Your task to perform on an android device: snooze an email in the gmail app Image 0: 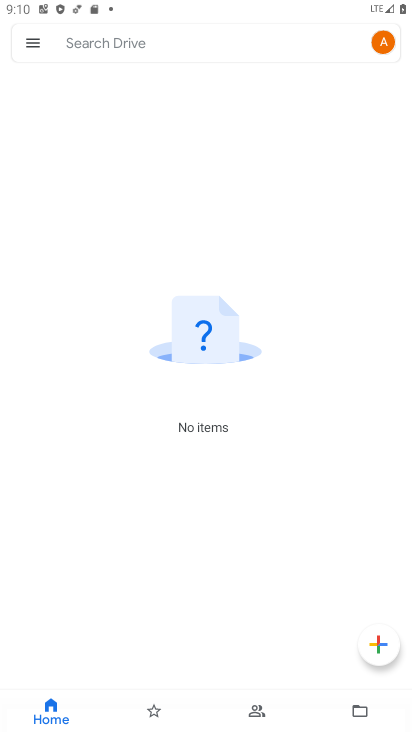
Step 0: press home button
Your task to perform on an android device: snooze an email in the gmail app Image 1: 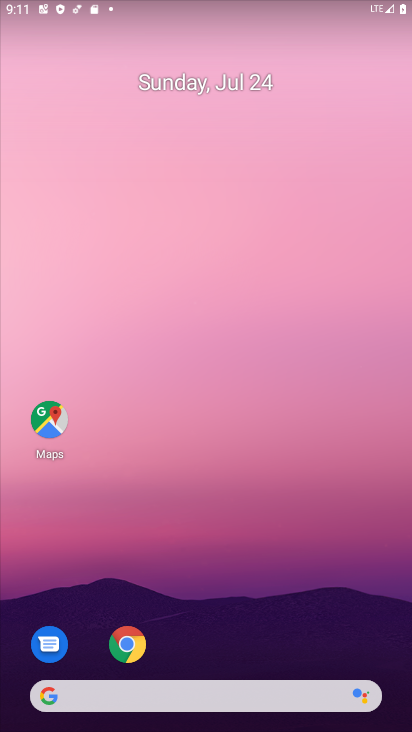
Step 1: drag from (14, 594) to (277, 140)
Your task to perform on an android device: snooze an email in the gmail app Image 2: 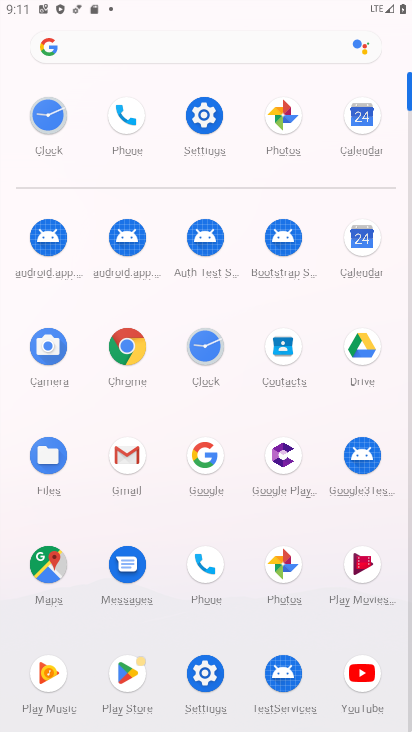
Step 2: click (122, 450)
Your task to perform on an android device: snooze an email in the gmail app Image 3: 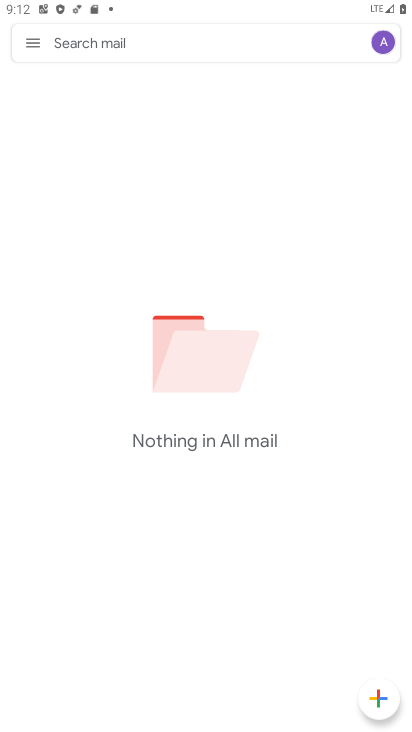
Step 3: click (35, 52)
Your task to perform on an android device: snooze an email in the gmail app Image 4: 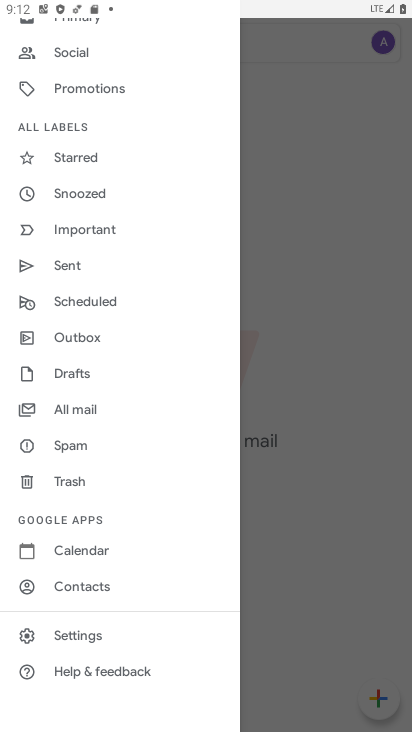
Step 4: click (57, 404)
Your task to perform on an android device: snooze an email in the gmail app Image 5: 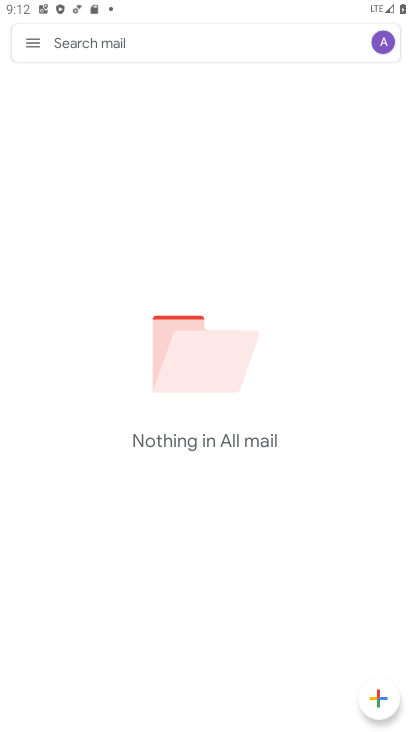
Step 5: task complete